Your task to perform on an android device: Open Chrome and go to settings Image 0: 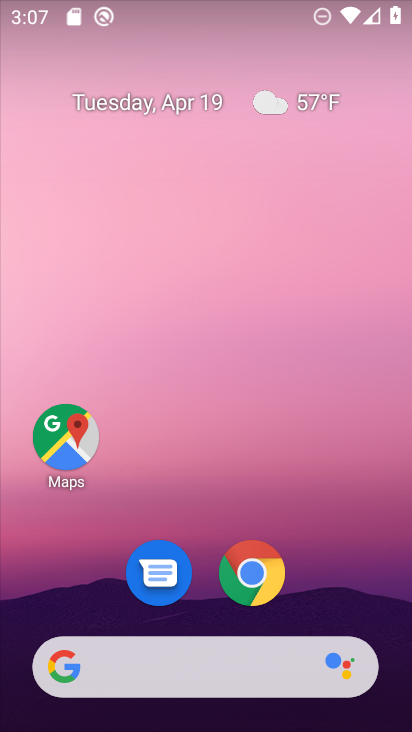
Step 0: click (253, 574)
Your task to perform on an android device: Open Chrome and go to settings Image 1: 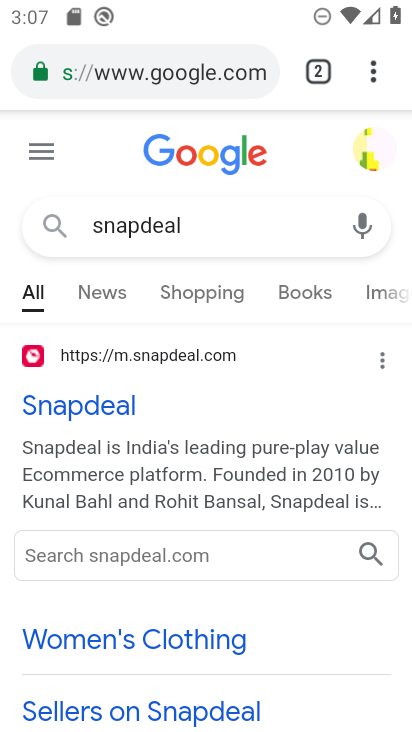
Step 1: click (376, 69)
Your task to perform on an android device: Open Chrome and go to settings Image 2: 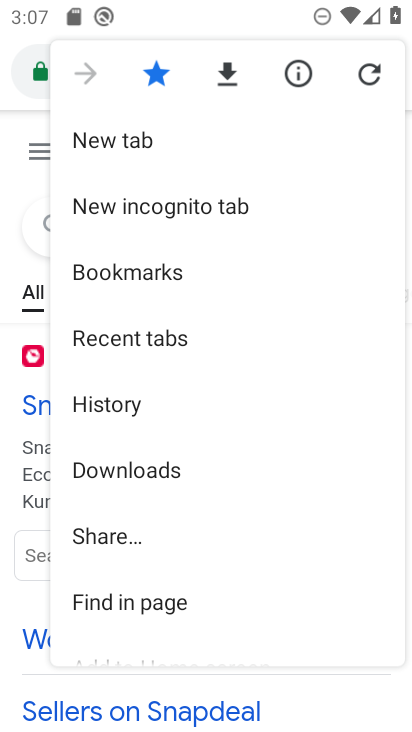
Step 2: drag from (262, 536) to (245, 193)
Your task to perform on an android device: Open Chrome and go to settings Image 3: 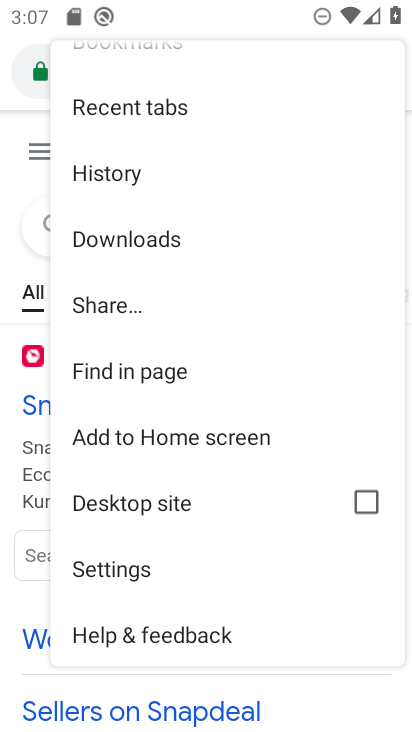
Step 3: click (112, 575)
Your task to perform on an android device: Open Chrome and go to settings Image 4: 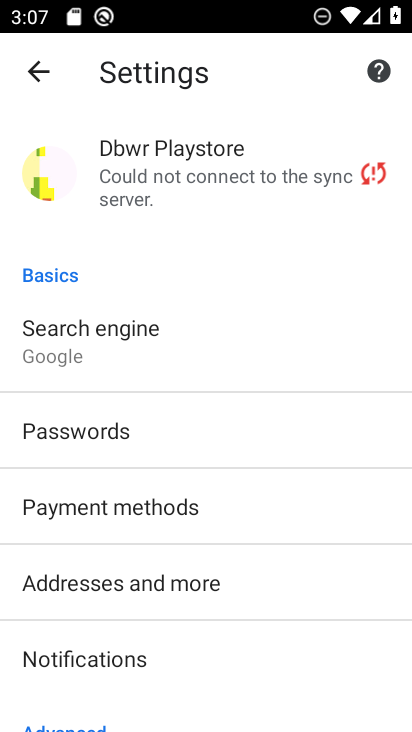
Step 4: task complete